Your task to perform on an android device: toggle notification dots Image 0: 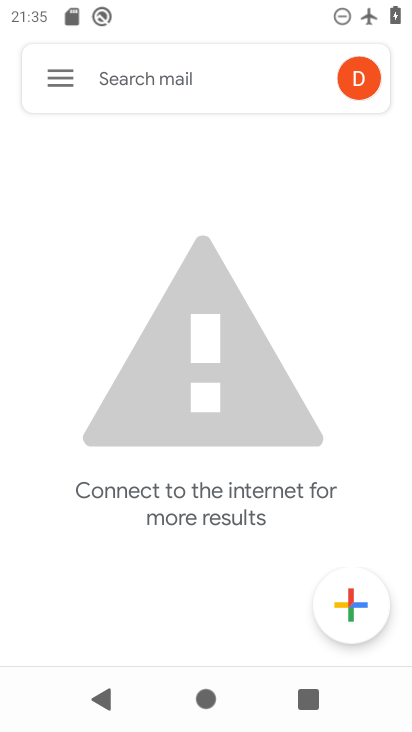
Step 0: press home button
Your task to perform on an android device: toggle notification dots Image 1: 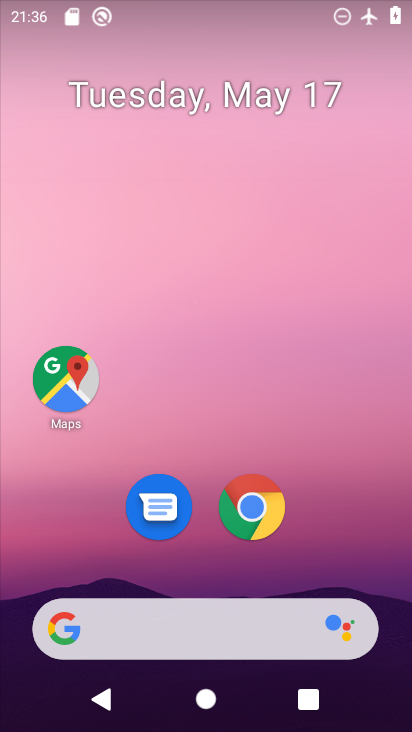
Step 1: drag from (333, 463) to (150, 0)
Your task to perform on an android device: toggle notification dots Image 2: 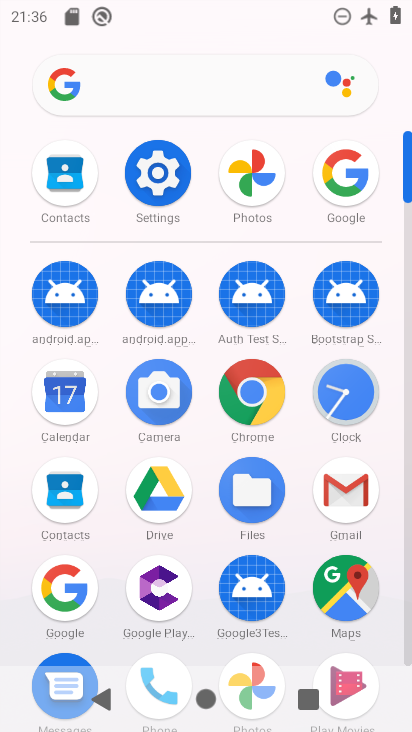
Step 2: click (153, 277)
Your task to perform on an android device: toggle notification dots Image 3: 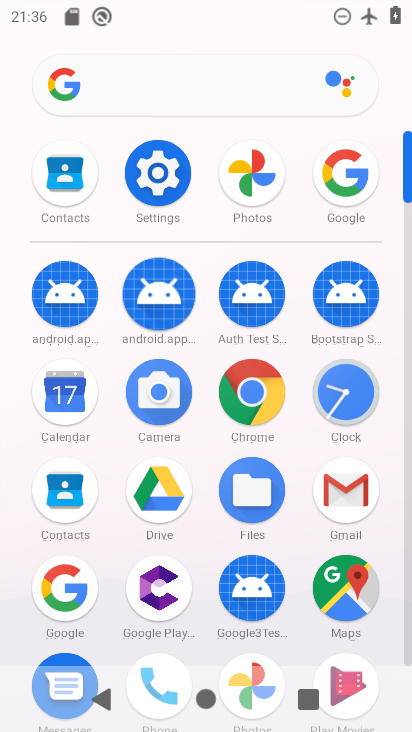
Step 3: click (156, 182)
Your task to perform on an android device: toggle notification dots Image 4: 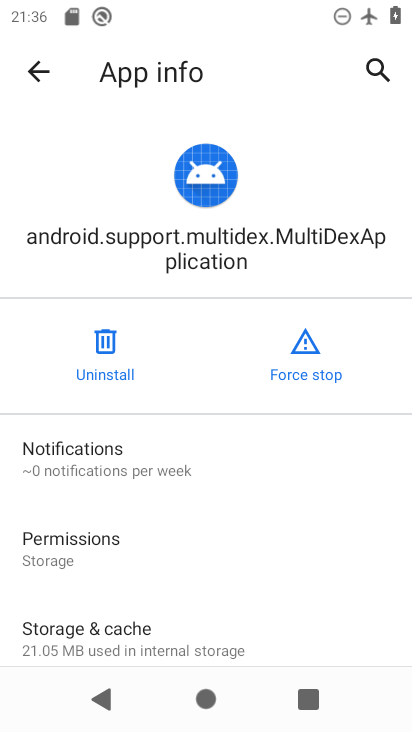
Step 4: click (45, 72)
Your task to perform on an android device: toggle notification dots Image 5: 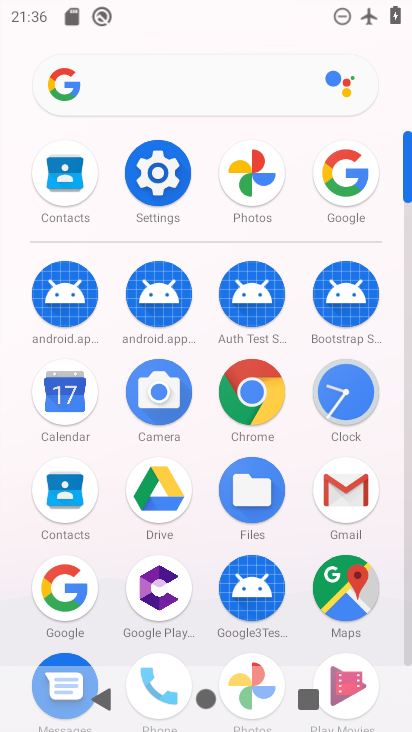
Step 5: click (145, 176)
Your task to perform on an android device: toggle notification dots Image 6: 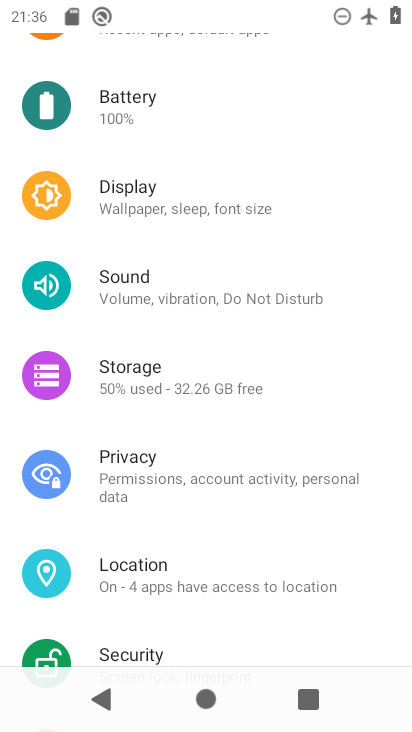
Step 6: drag from (221, 181) to (295, 481)
Your task to perform on an android device: toggle notification dots Image 7: 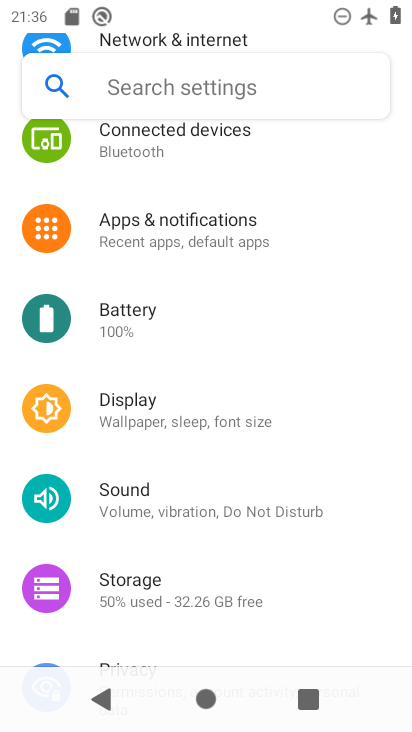
Step 7: click (161, 223)
Your task to perform on an android device: toggle notification dots Image 8: 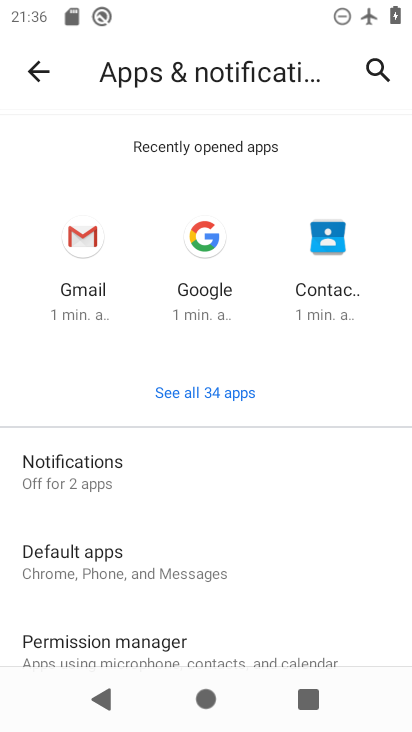
Step 8: click (76, 469)
Your task to perform on an android device: toggle notification dots Image 9: 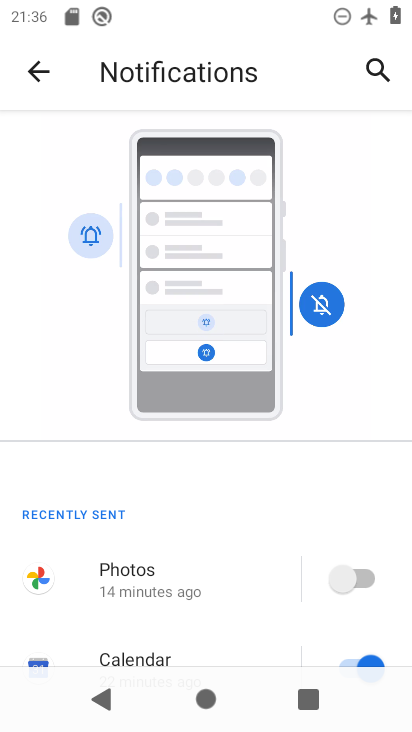
Step 9: drag from (215, 497) to (225, 347)
Your task to perform on an android device: toggle notification dots Image 10: 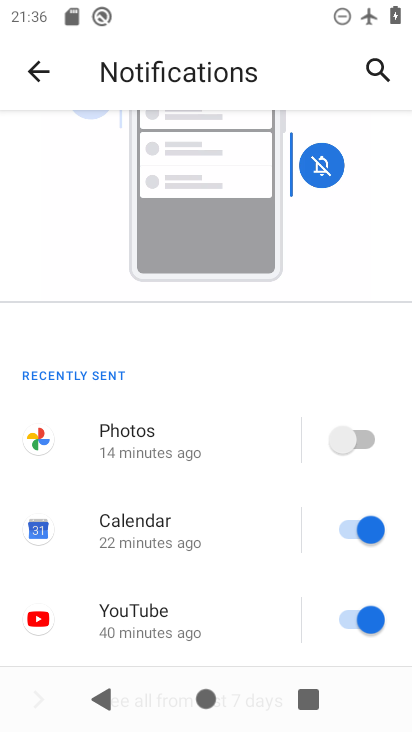
Step 10: drag from (225, 334) to (202, 126)
Your task to perform on an android device: toggle notification dots Image 11: 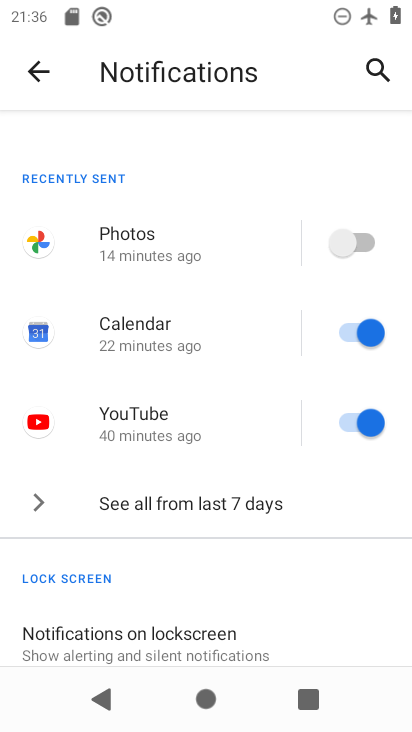
Step 11: drag from (145, 460) to (150, 92)
Your task to perform on an android device: toggle notification dots Image 12: 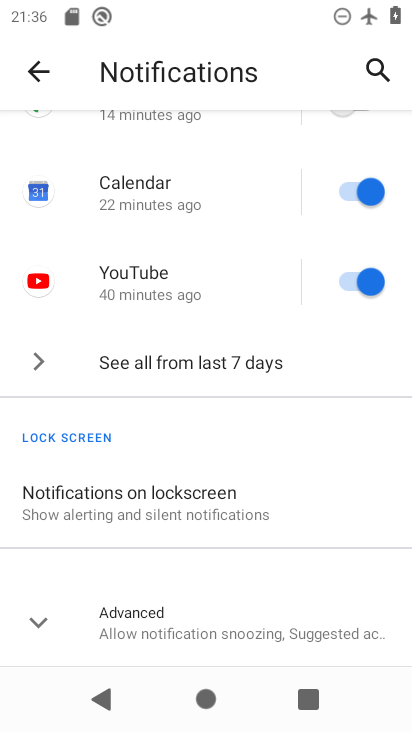
Step 12: click (33, 635)
Your task to perform on an android device: toggle notification dots Image 13: 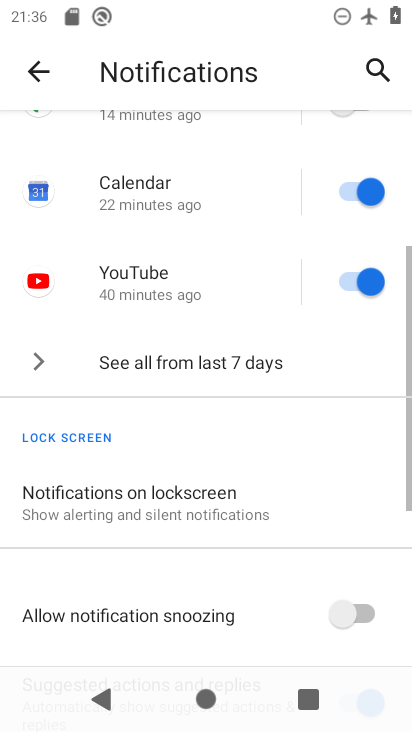
Step 13: drag from (160, 618) to (168, 199)
Your task to perform on an android device: toggle notification dots Image 14: 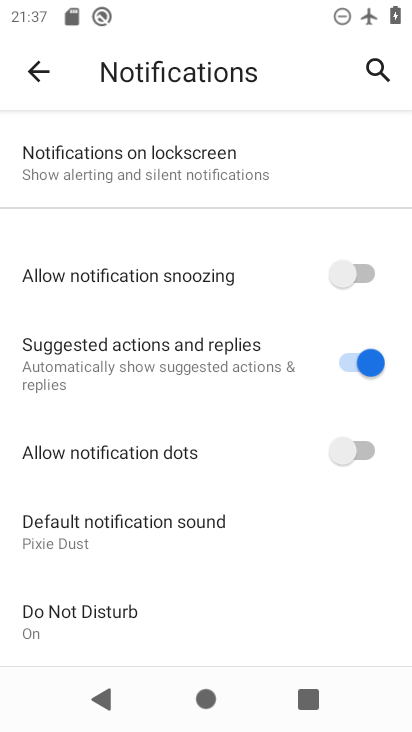
Step 14: click (332, 455)
Your task to perform on an android device: toggle notification dots Image 15: 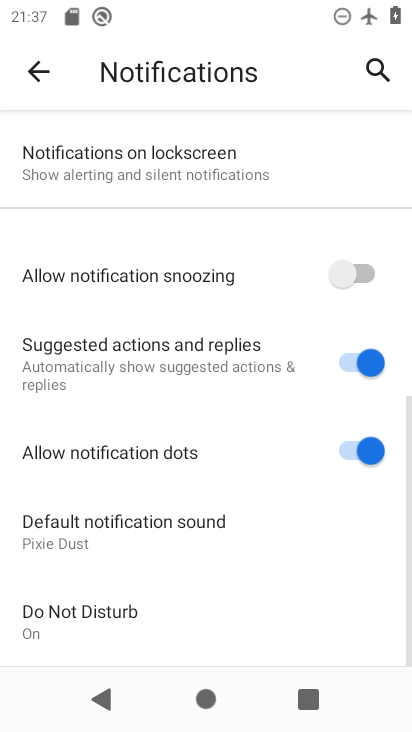
Step 15: task complete